Your task to perform on an android device: check storage Image 0: 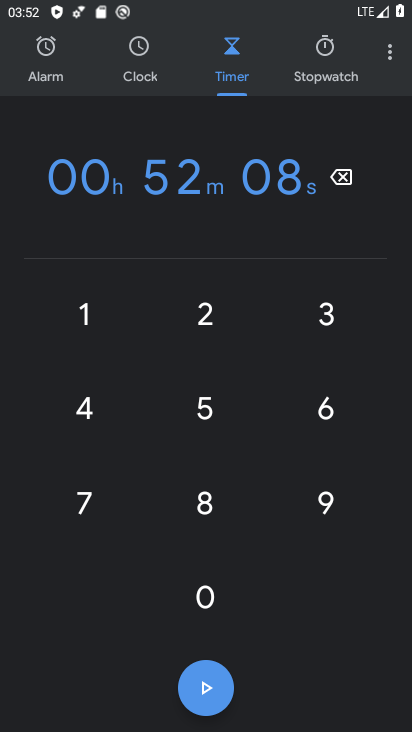
Step 0: press home button
Your task to perform on an android device: check storage Image 1: 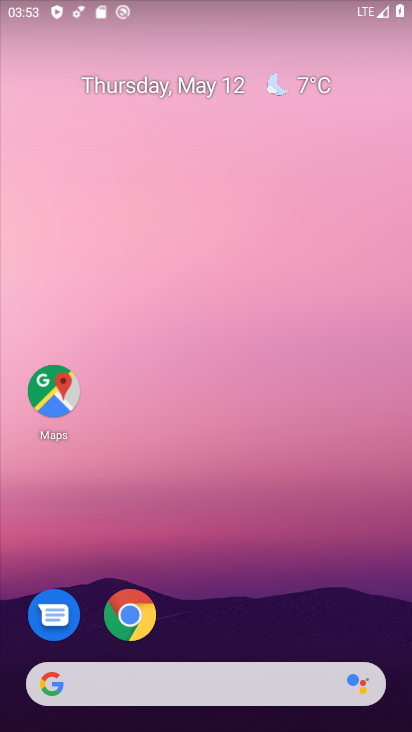
Step 1: drag from (219, 607) to (226, 98)
Your task to perform on an android device: check storage Image 2: 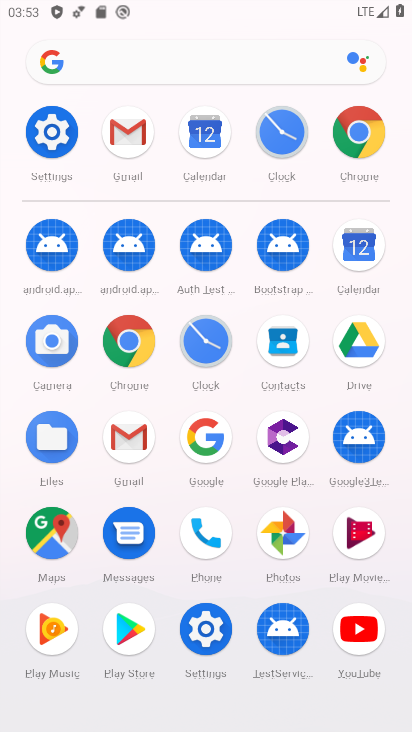
Step 2: click (45, 131)
Your task to perform on an android device: check storage Image 3: 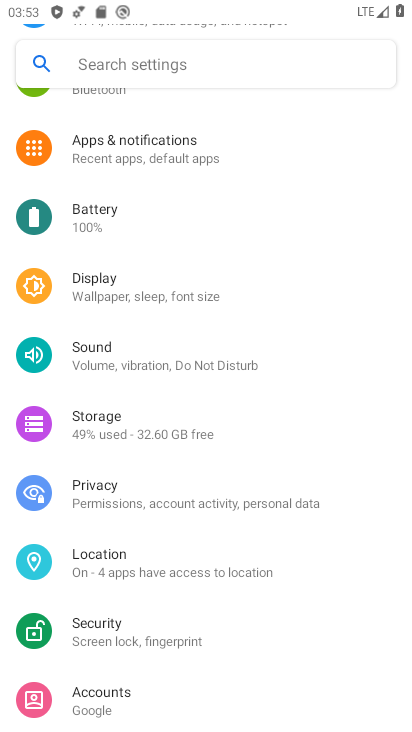
Step 3: click (133, 433)
Your task to perform on an android device: check storage Image 4: 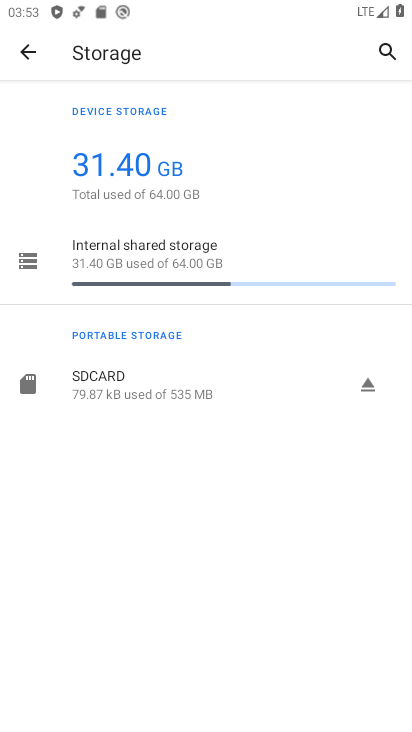
Step 4: task complete